Your task to perform on an android device: set the timer Image 0: 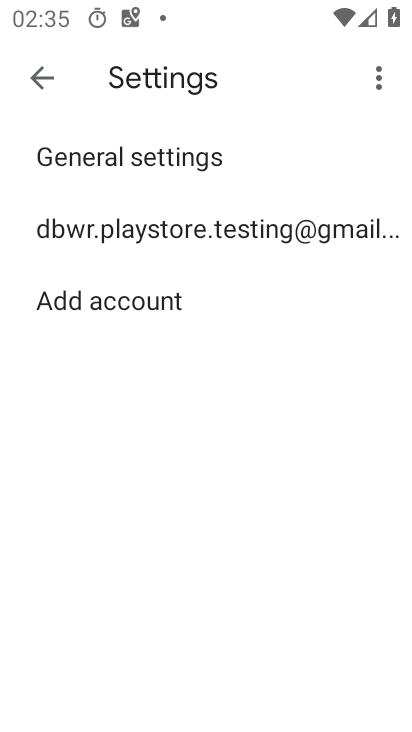
Step 0: press home button
Your task to perform on an android device: set the timer Image 1: 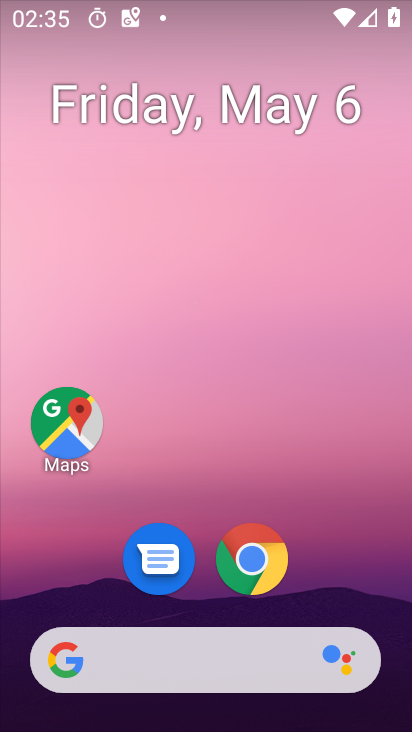
Step 1: drag from (297, 587) to (280, 1)
Your task to perform on an android device: set the timer Image 2: 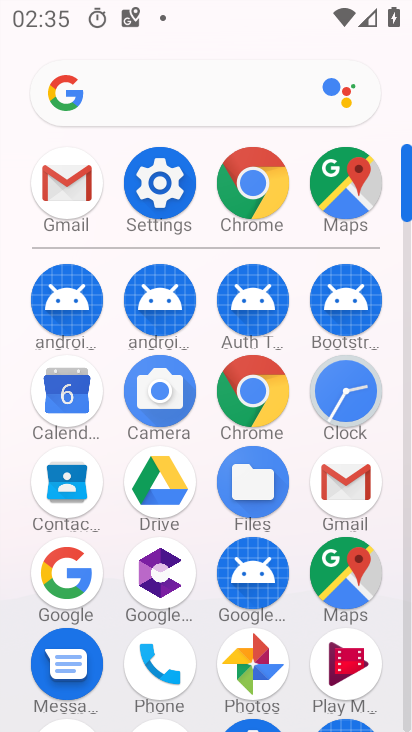
Step 2: click (357, 401)
Your task to perform on an android device: set the timer Image 3: 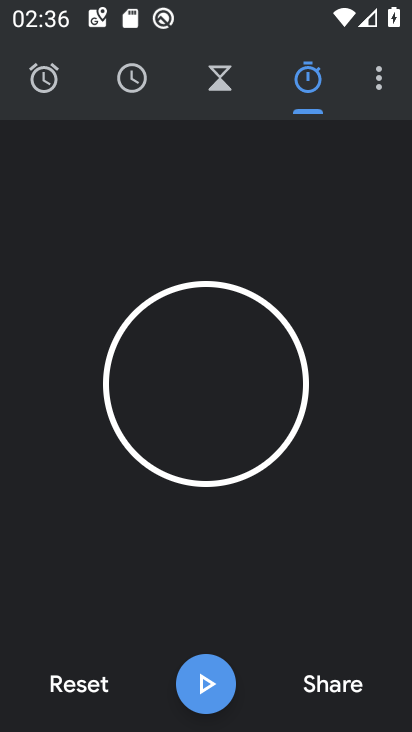
Step 3: click (365, 77)
Your task to perform on an android device: set the timer Image 4: 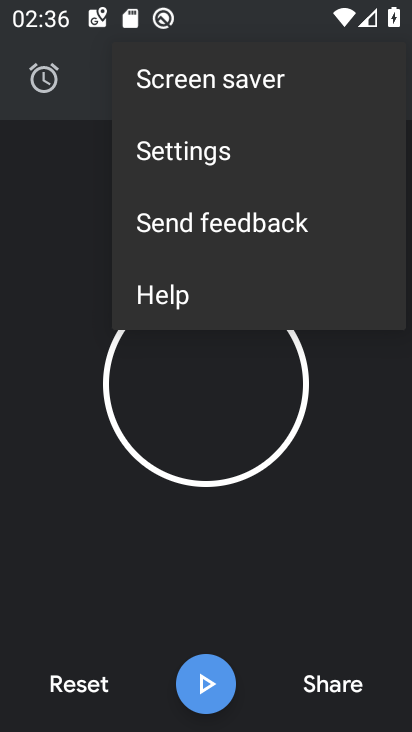
Step 4: click (184, 145)
Your task to perform on an android device: set the timer Image 5: 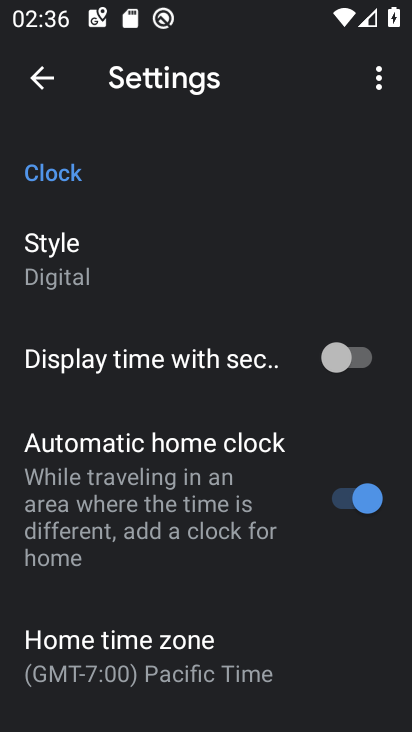
Step 5: press back button
Your task to perform on an android device: set the timer Image 6: 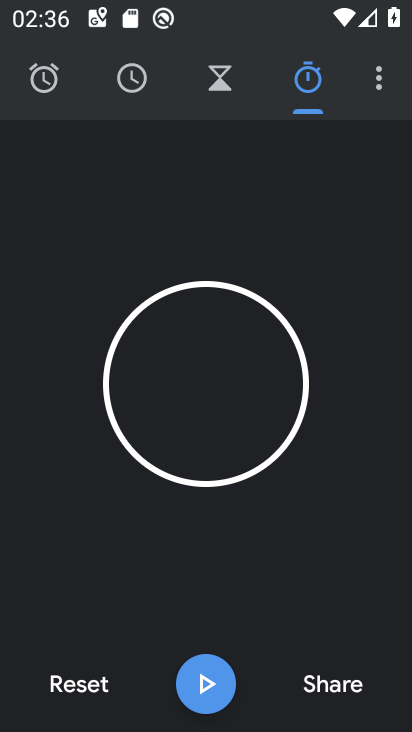
Step 6: click (214, 85)
Your task to perform on an android device: set the timer Image 7: 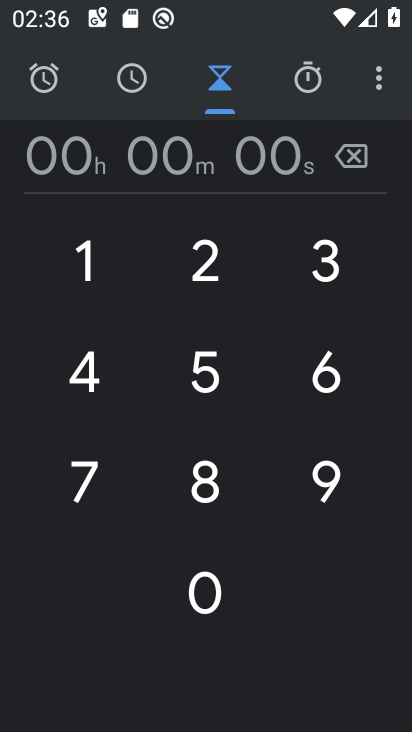
Step 7: click (207, 480)
Your task to perform on an android device: set the timer Image 8: 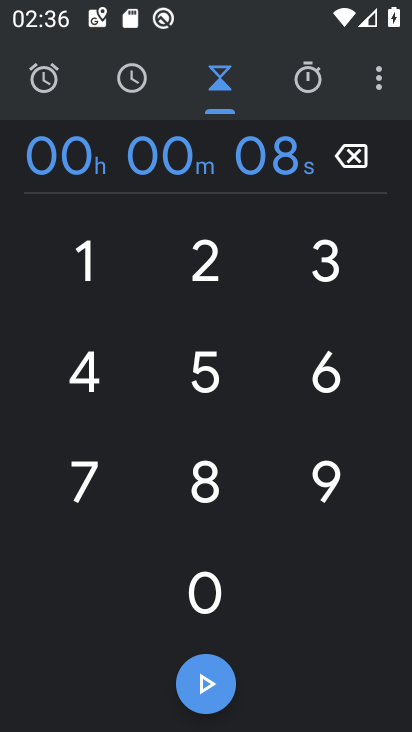
Step 8: click (336, 490)
Your task to perform on an android device: set the timer Image 9: 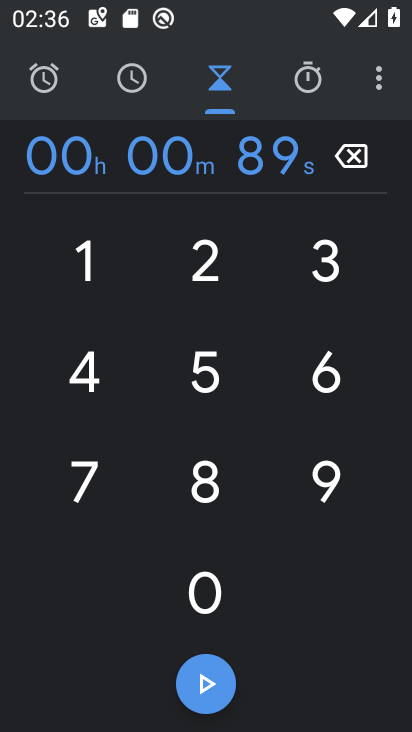
Step 9: click (215, 369)
Your task to perform on an android device: set the timer Image 10: 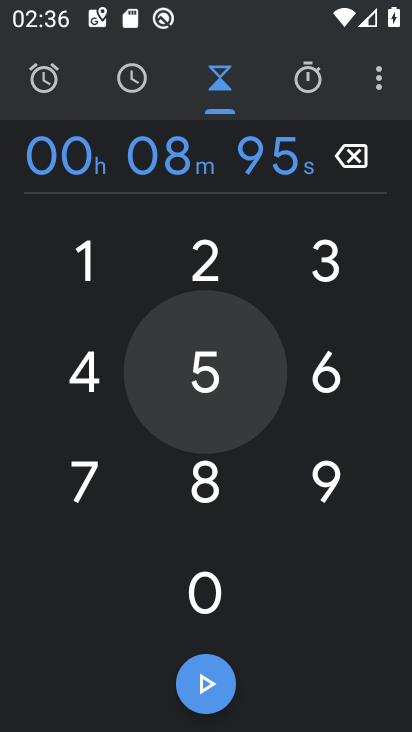
Step 10: click (328, 370)
Your task to perform on an android device: set the timer Image 11: 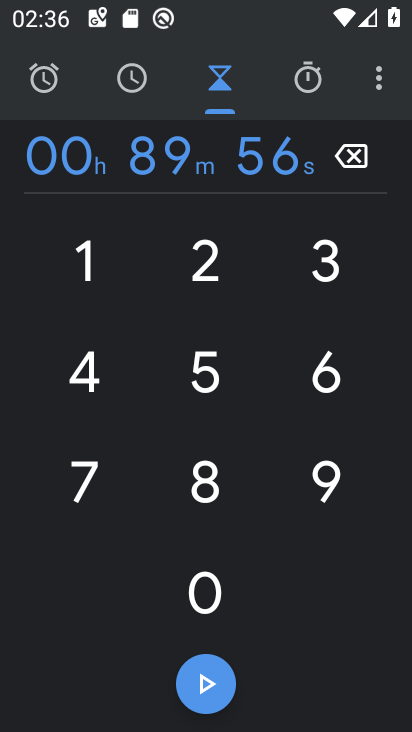
Step 11: click (82, 370)
Your task to perform on an android device: set the timer Image 12: 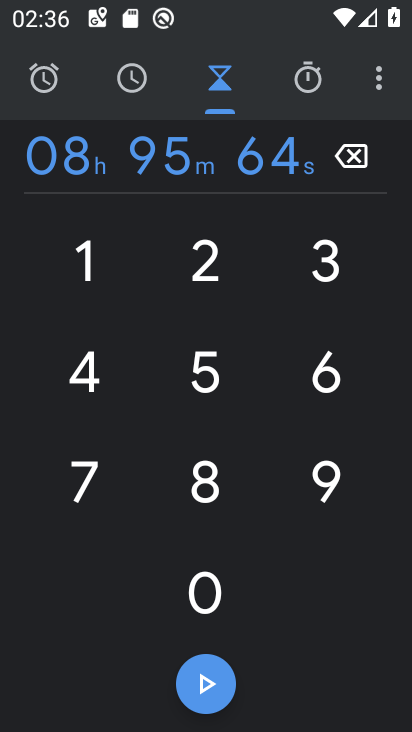
Step 12: click (219, 495)
Your task to perform on an android device: set the timer Image 13: 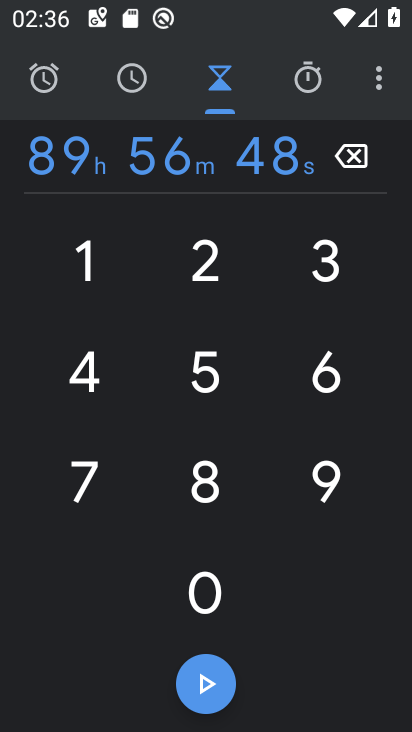
Step 13: click (216, 695)
Your task to perform on an android device: set the timer Image 14: 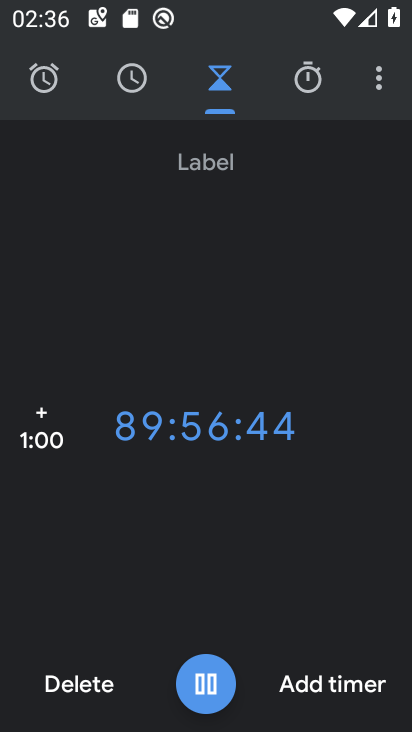
Step 14: task complete